Your task to perform on an android device: clear all cookies in the chrome app Image 0: 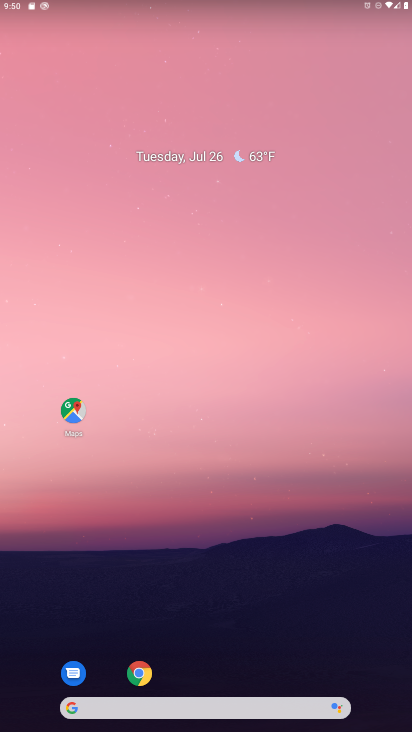
Step 0: drag from (384, 670) to (103, 79)
Your task to perform on an android device: clear all cookies in the chrome app Image 1: 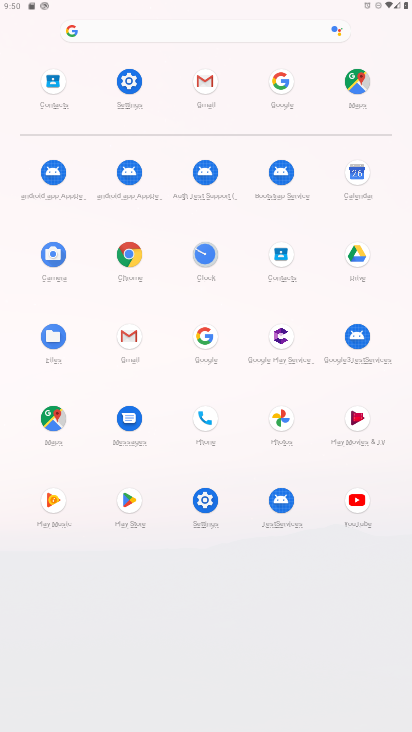
Step 1: click (127, 264)
Your task to perform on an android device: clear all cookies in the chrome app Image 2: 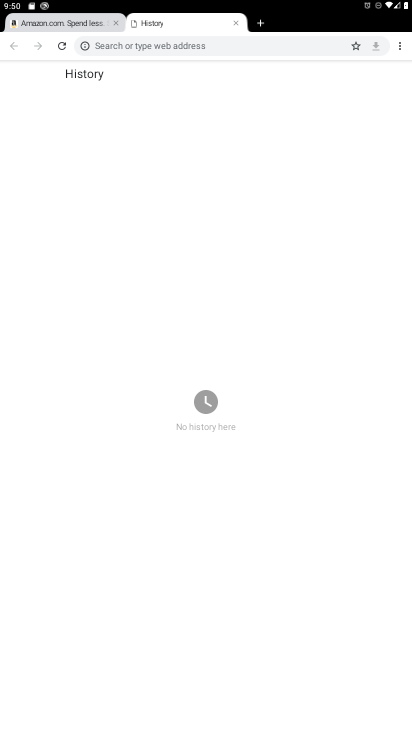
Step 2: click (397, 47)
Your task to perform on an android device: clear all cookies in the chrome app Image 3: 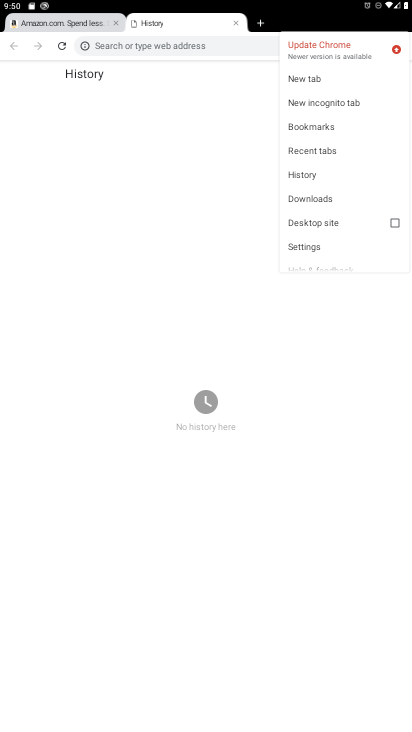
Step 3: click (323, 172)
Your task to perform on an android device: clear all cookies in the chrome app Image 4: 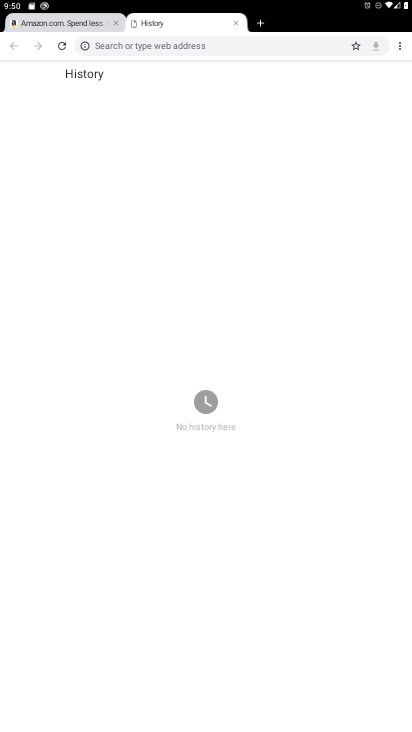
Step 4: task complete